Your task to perform on an android device: Open settings Image 0: 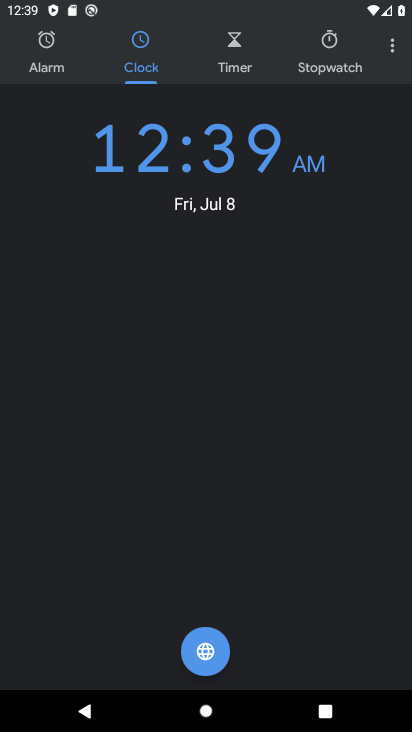
Step 0: press home button
Your task to perform on an android device: Open settings Image 1: 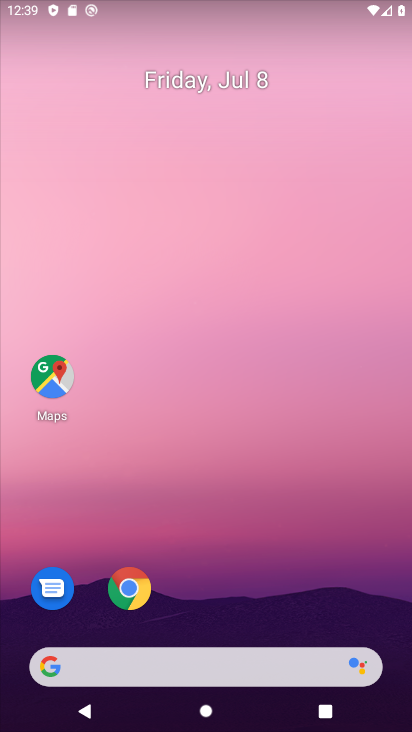
Step 1: drag from (230, 585) to (358, 9)
Your task to perform on an android device: Open settings Image 2: 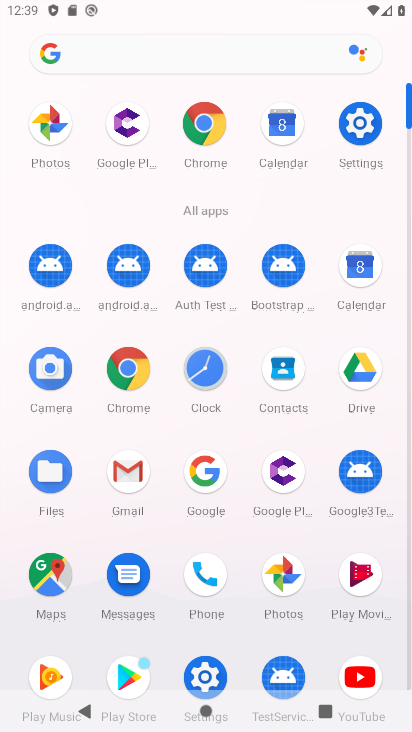
Step 2: click (207, 673)
Your task to perform on an android device: Open settings Image 3: 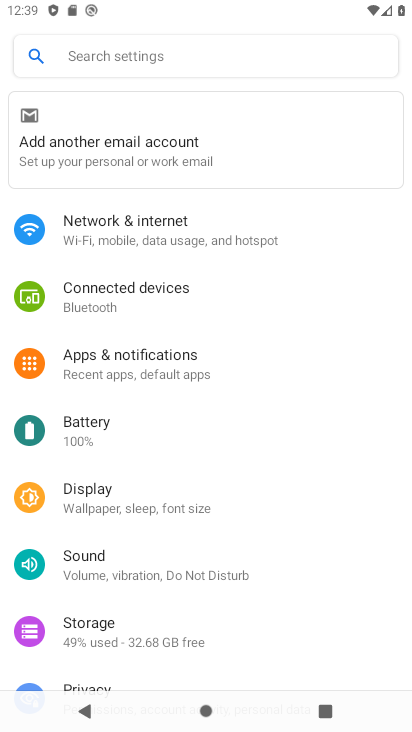
Step 3: task complete